Your task to perform on an android device: Go to accessibility settings Image 0: 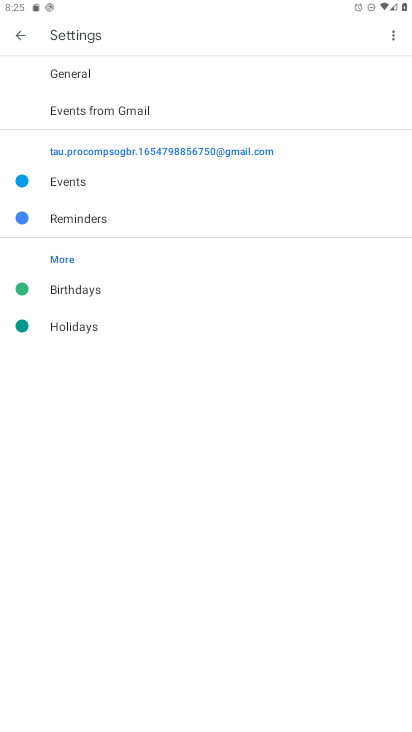
Step 0: press home button
Your task to perform on an android device: Go to accessibility settings Image 1: 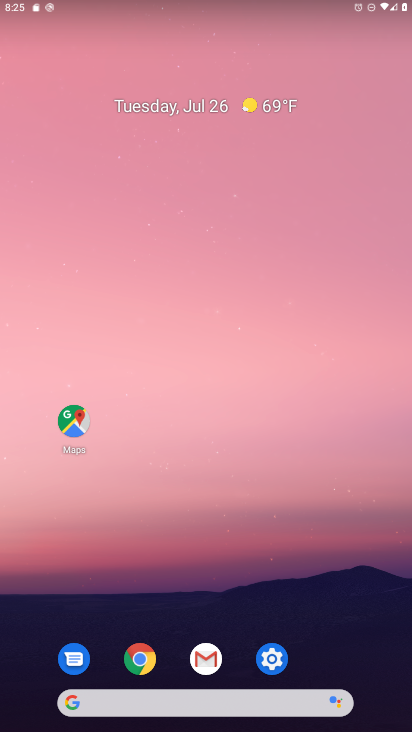
Step 1: click (266, 658)
Your task to perform on an android device: Go to accessibility settings Image 2: 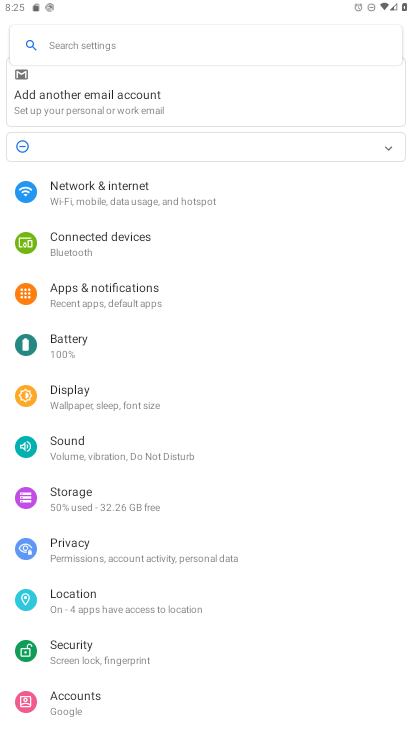
Step 2: click (103, 43)
Your task to perform on an android device: Go to accessibility settings Image 3: 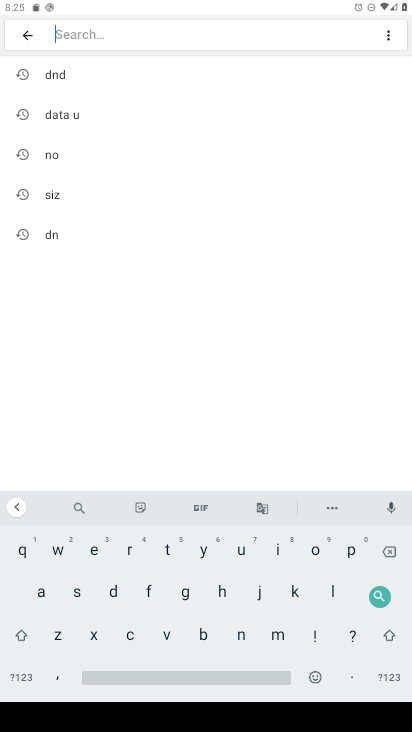
Step 3: click (39, 588)
Your task to perform on an android device: Go to accessibility settings Image 4: 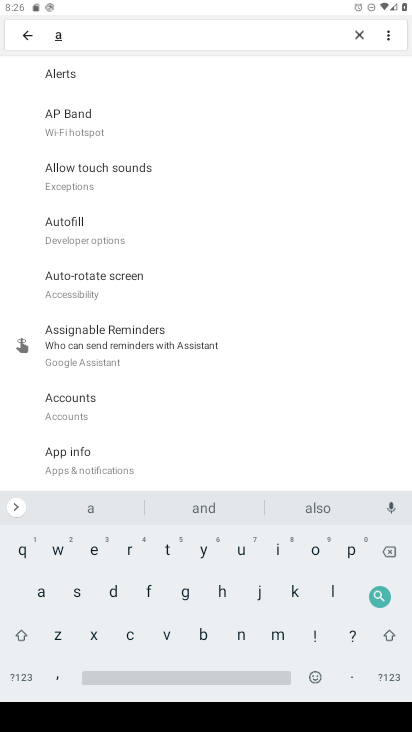
Step 4: click (121, 636)
Your task to perform on an android device: Go to accessibility settings Image 5: 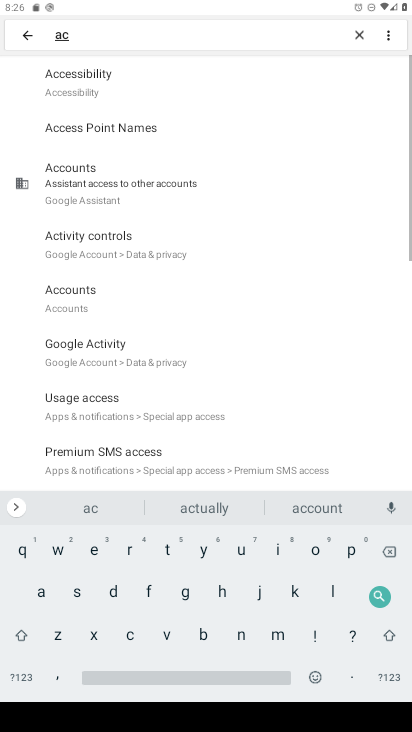
Step 5: click (109, 98)
Your task to perform on an android device: Go to accessibility settings Image 6: 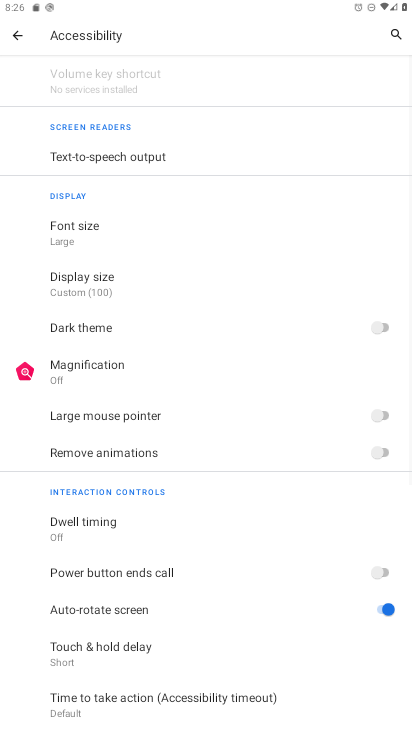
Step 6: task complete